Your task to perform on an android device: allow notifications from all sites in the chrome app Image 0: 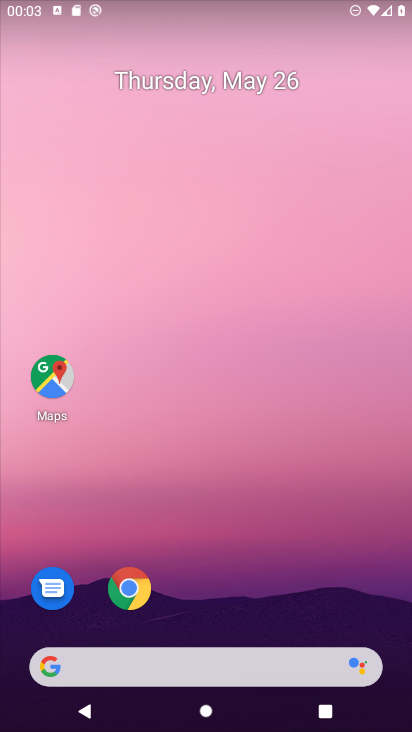
Step 0: press home button
Your task to perform on an android device: allow notifications from all sites in the chrome app Image 1: 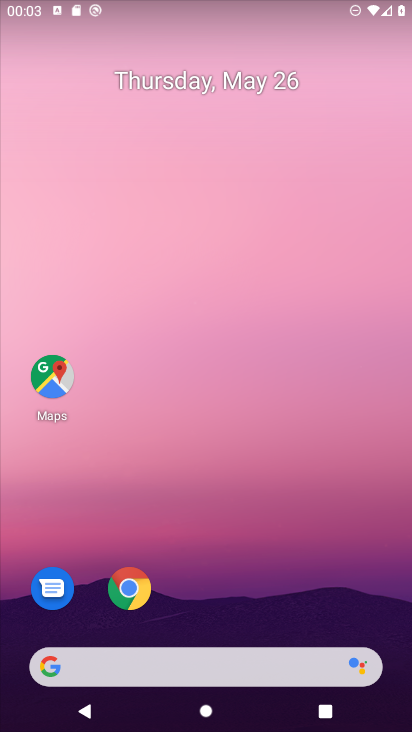
Step 1: drag from (46, 590) to (305, 95)
Your task to perform on an android device: allow notifications from all sites in the chrome app Image 2: 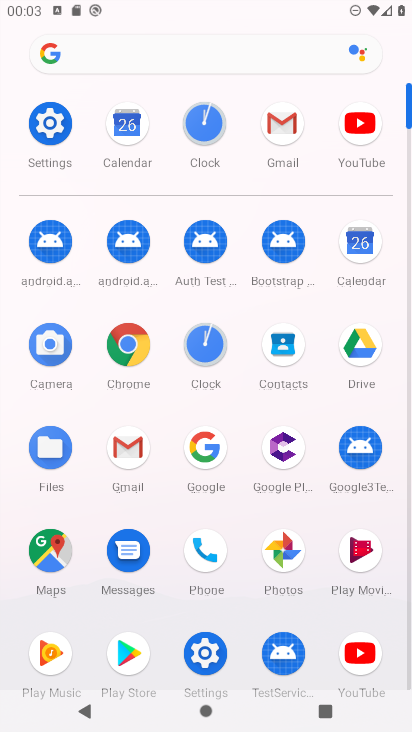
Step 2: click (140, 347)
Your task to perform on an android device: allow notifications from all sites in the chrome app Image 3: 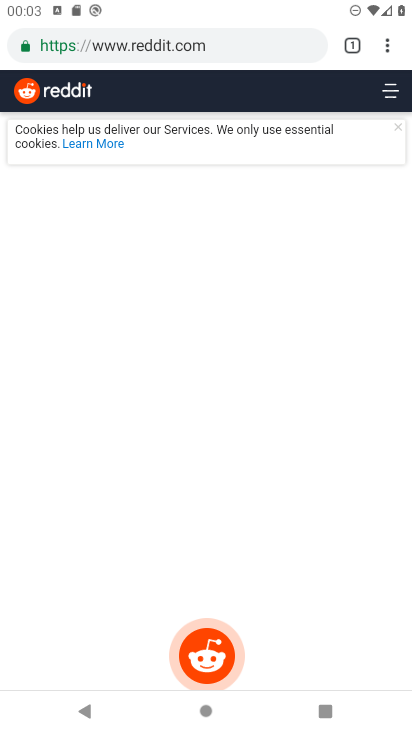
Step 3: click (384, 48)
Your task to perform on an android device: allow notifications from all sites in the chrome app Image 4: 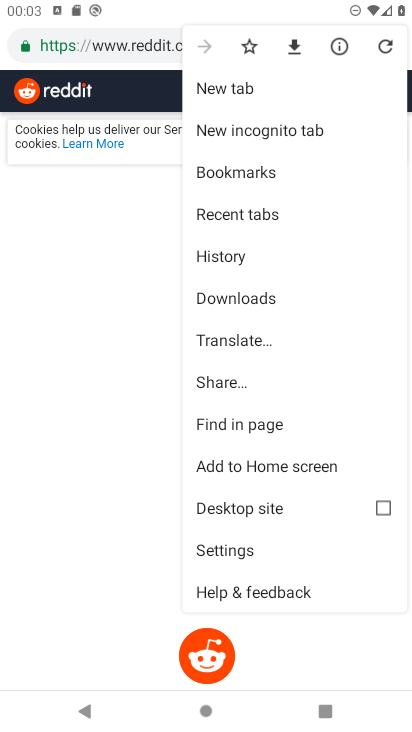
Step 4: click (212, 544)
Your task to perform on an android device: allow notifications from all sites in the chrome app Image 5: 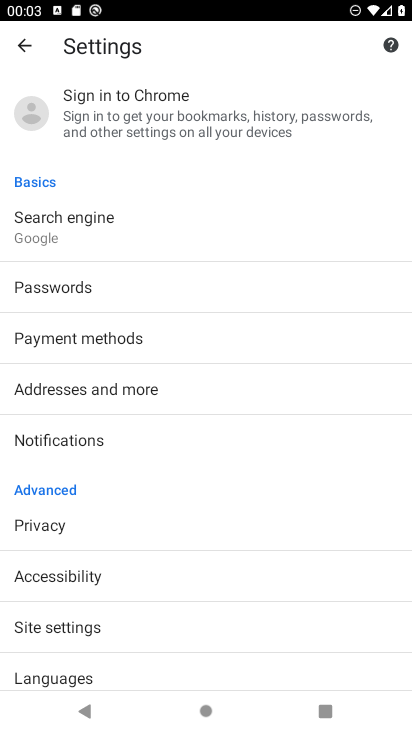
Step 5: click (82, 436)
Your task to perform on an android device: allow notifications from all sites in the chrome app Image 6: 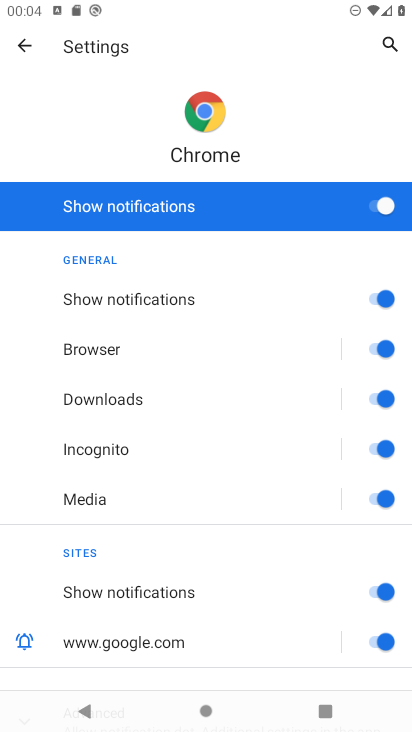
Step 6: task complete